Your task to perform on an android device: toggle wifi Image 0: 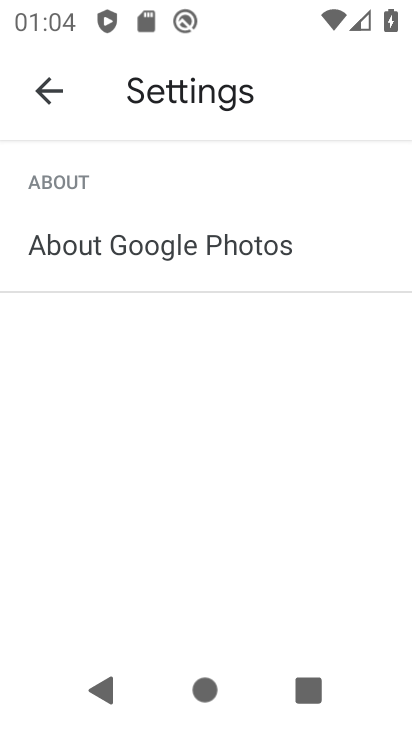
Step 0: press home button
Your task to perform on an android device: toggle wifi Image 1: 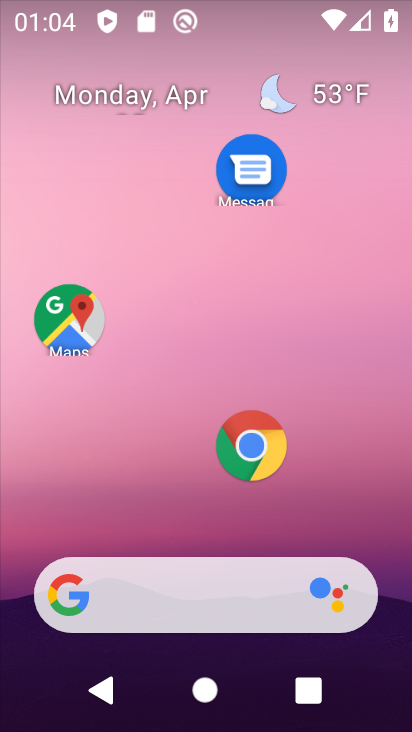
Step 1: drag from (136, 435) to (215, 112)
Your task to perform on an android device: toggle wifi Image 2: 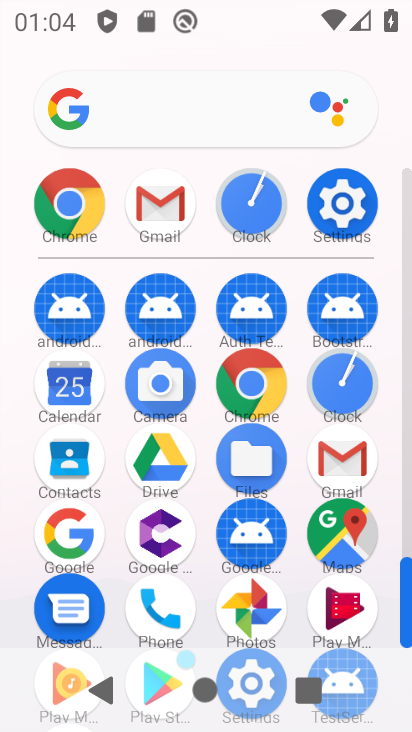
Step 2: click (342, 213)
Your task to perform on an android device: toggle wifi Image 3: 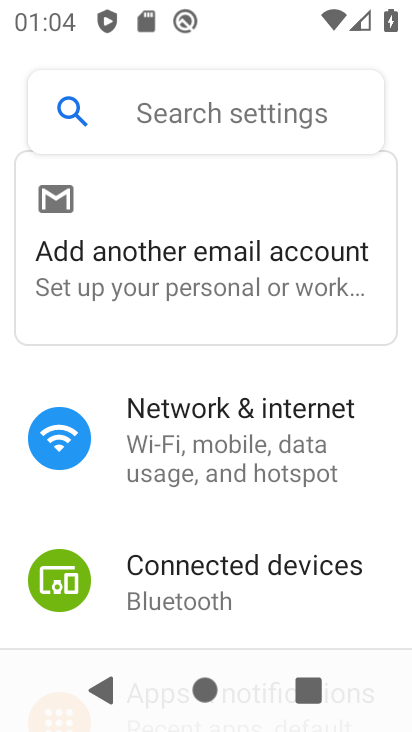
Step 3: click (224, 463)
Your task to perform on an android device: toggle wifi Image 4: 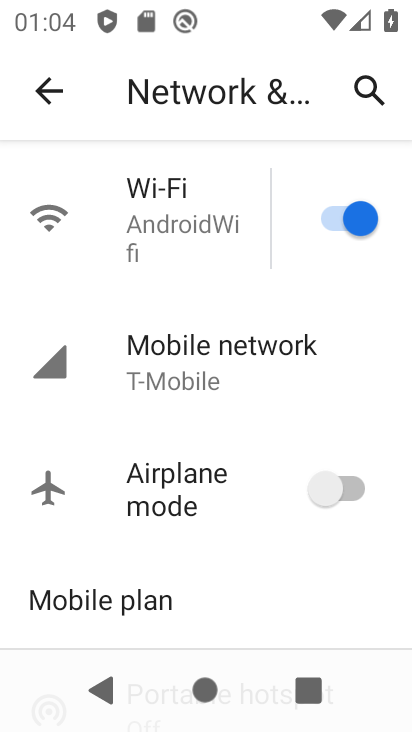
Step 4: click (303, 210)
Your task to perform on an android device: toggle wifi Image 5: 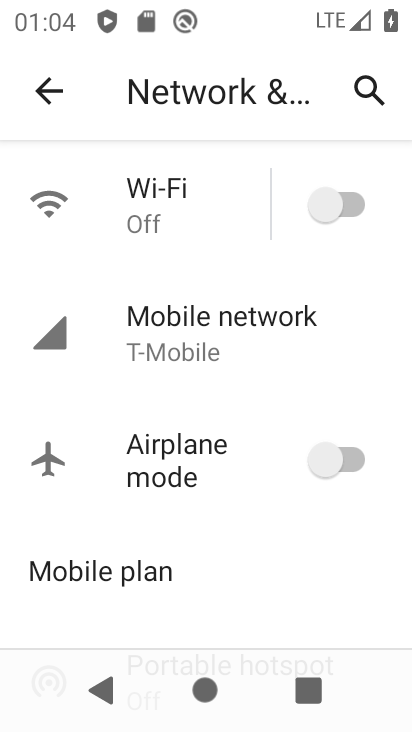
Step 5: task complete